Your task to perform on an android device: Go to display settings Image 0: 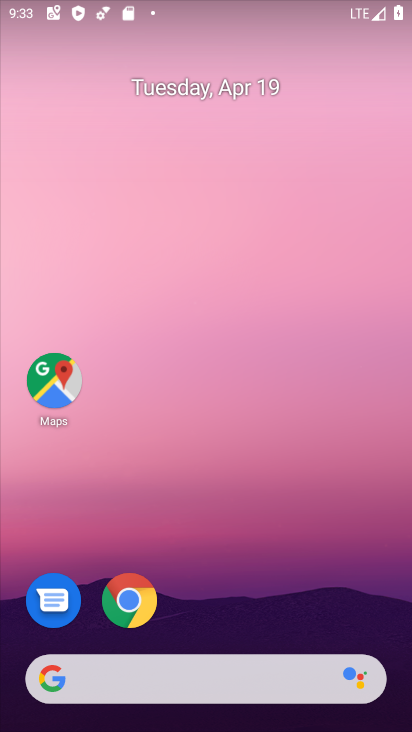
Step 0: drag from (364, 585) to (248, 208)
Your task to perform on an android device: Go to display settings Image 1: 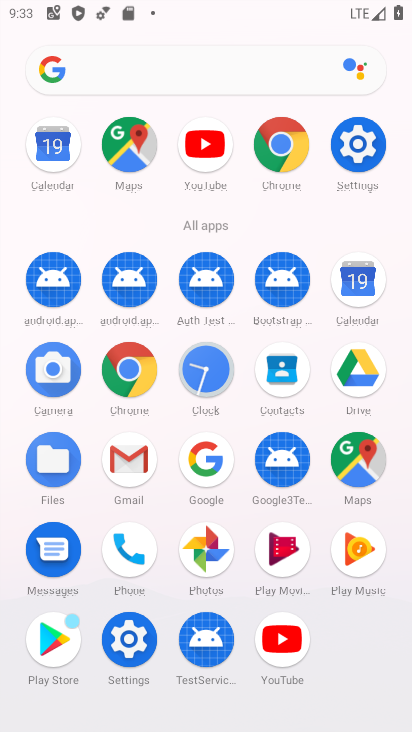
Step 1: click (362, 142)
Your task to perform on an android device: Go to display settings Image 2: 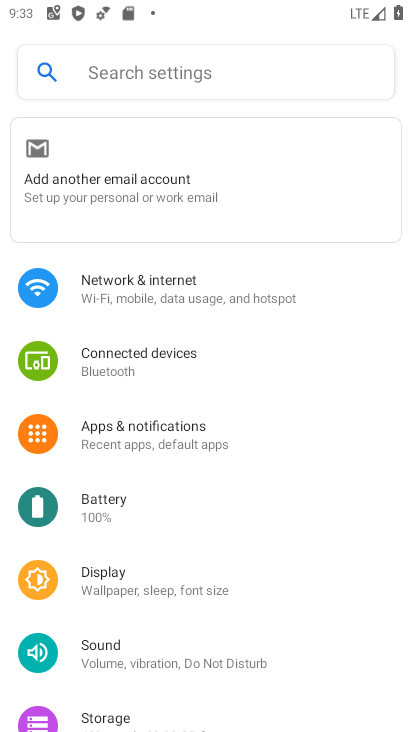
Step 2: click (278, 585)
Your task to perform on an android device: Go to display settings Image 3: 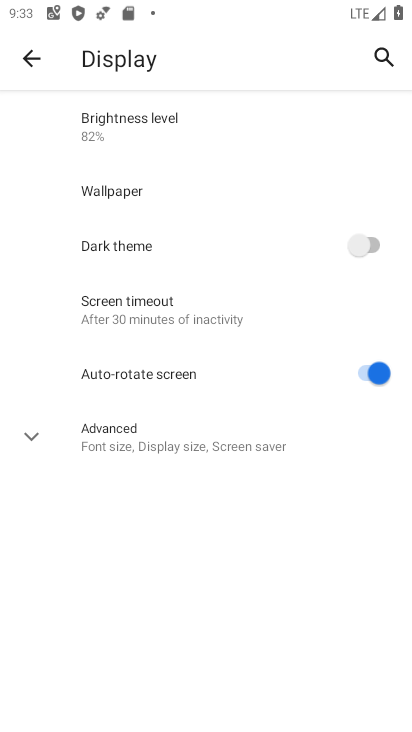
Step 3: task complete